Your task to perform on an android device: Open Google Maps and go to "Timeline" Image 0: 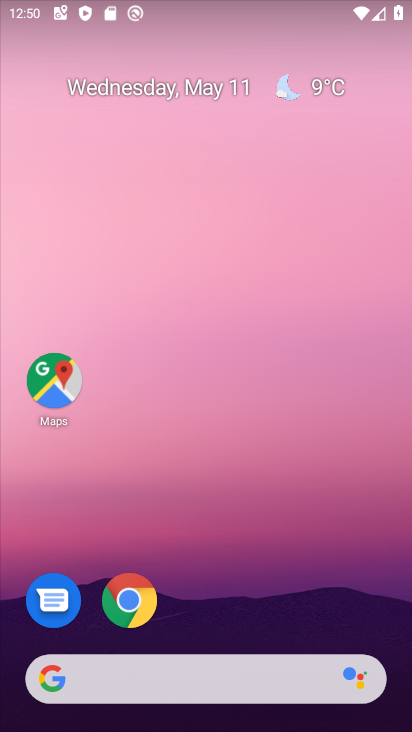
Step 0: click (49, 371)
Your task to perform on an android device: Open Google Maps and go to "Timeline" Image 1: 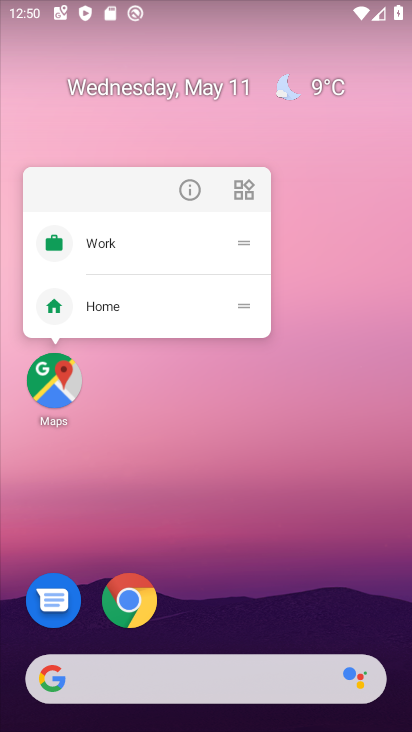
Step 1: click (61, 377)
Your task to perform on an android device: Open Google Maps and go to "Timeline" Image 2: 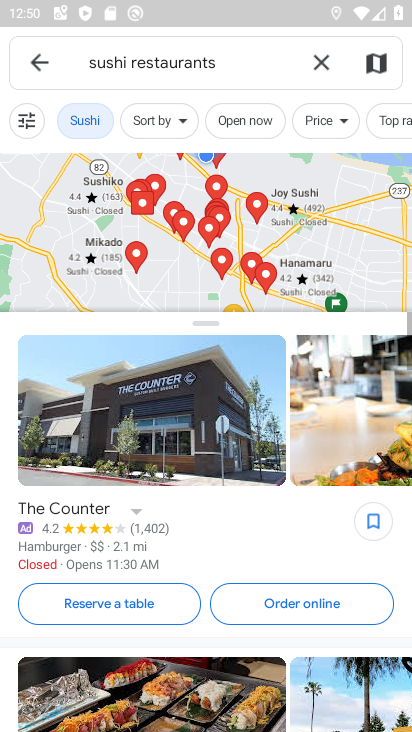
Step 2: click (37, 57)
Your task to perform on an android device: Open Google Maps and go to "Timeline" Image 3: 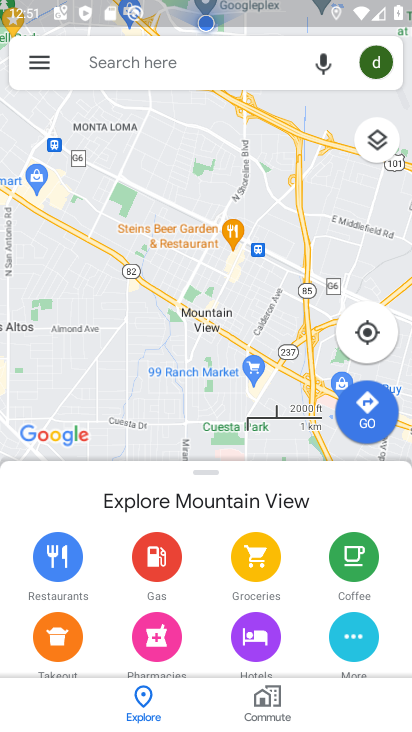
Step 3: click (37, 57)
Your task to perform on an android device: Open Google Maps and go to "Timeline" Image 4: 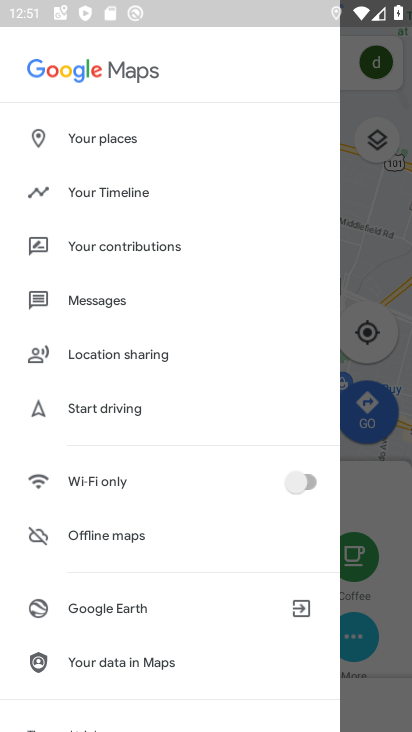
Step 4: click (128, 194)
Your task to perform on an android device: Open Google Maps and go to "Timeline" Image 5: 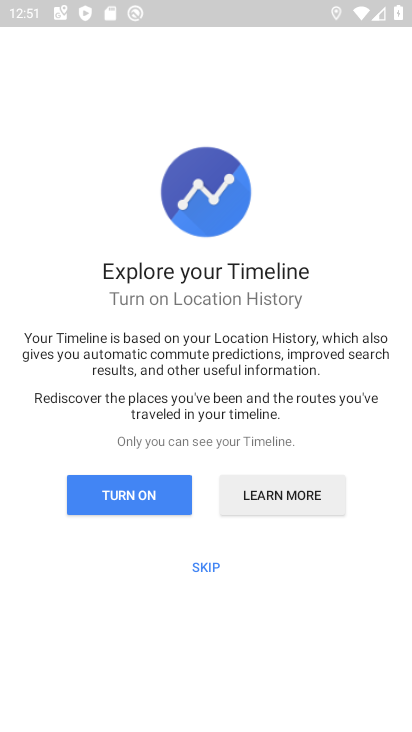
Step 5: click (202, 570)
Your task to perform on an android device: Open Google Maps and go to "Timeline" Image 6: 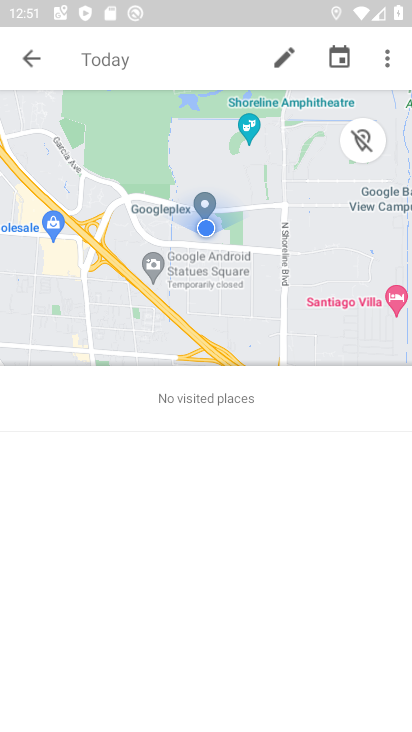
Step 6: click (31, 57)
Your task to perform on an android device: Open Google Maps and go to "Timeline" Image 7: 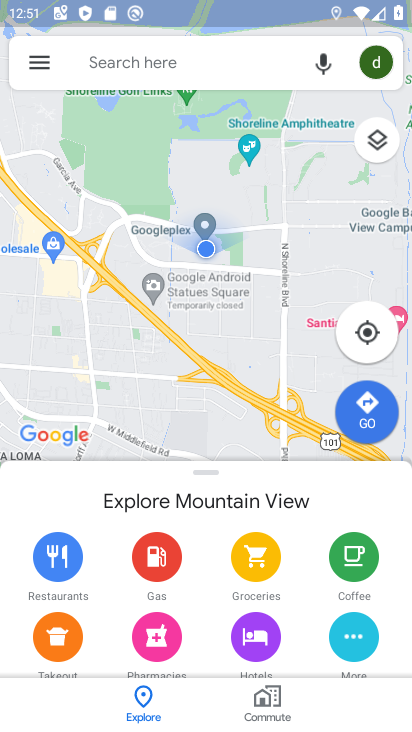
Step 7: click (42, 54)
Your task to perform on an android device: Open Google Maps and go to "Timeline" Image 8: 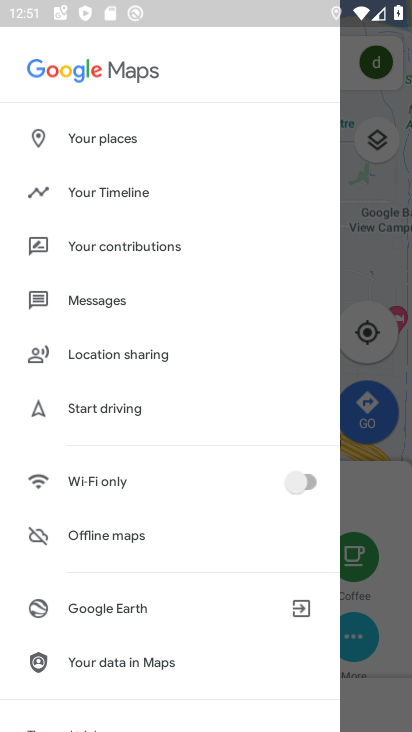
Step 8: drag from (216, 573) to (292, 155)
Your task to perform on an android device: Open Google Maps and go to "Timeline" Image 9: 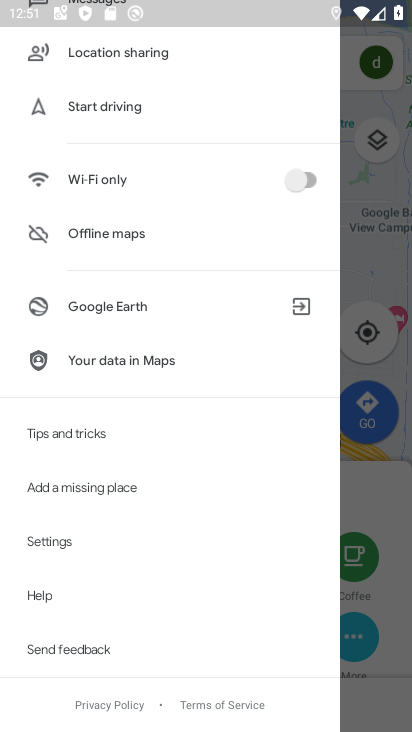
Step 9: drag from (237, 123) to (151, 648)
Your task to perform on an android device: Open Google Maps and go to "Timeline" Image 10: 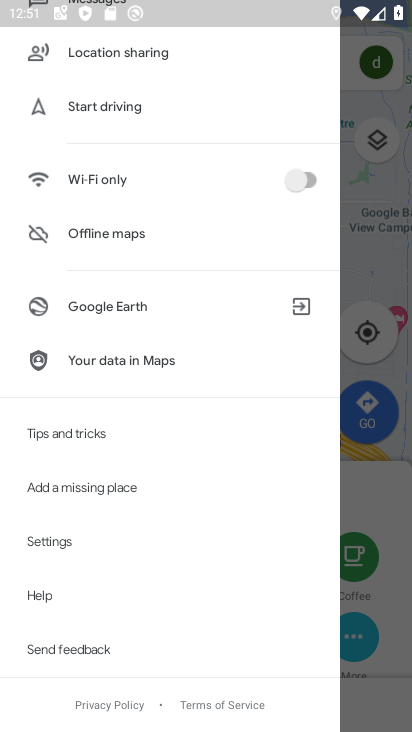
Step 10: drag from (175, 165) to (133, 587)
Your task to perform on an android device: Open Google Maps and go to "Timeline" Image 11: 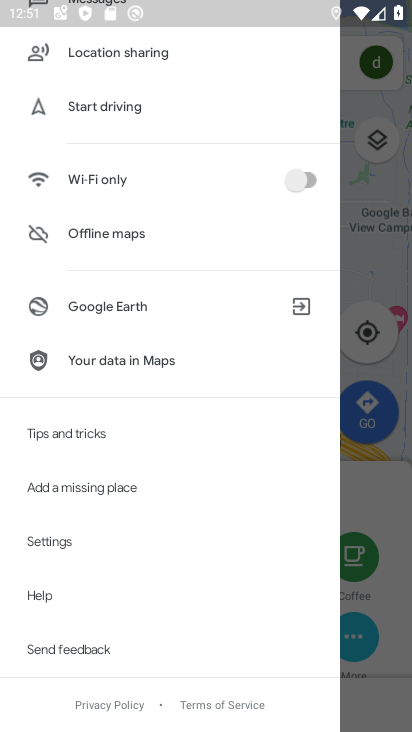
Step 11: drag from (113, 137) to (123, 627)
Your task to perform on an android device: Open Google Maps and go to "Timeline" Image 12: 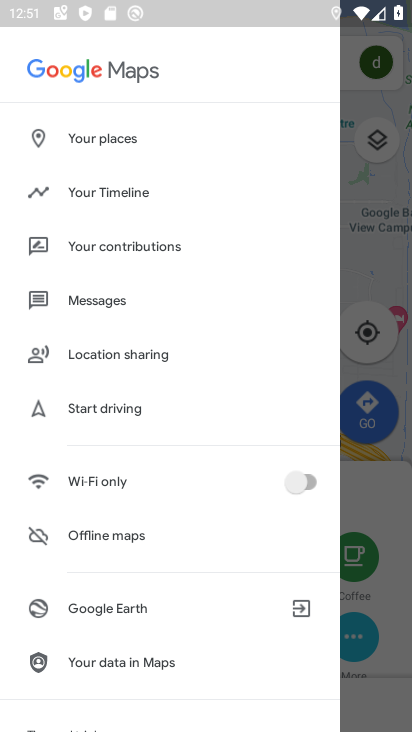
Step 12: click (137, 193)
Your task to perform on an android device: Open Google Maps and go to "Timeline" Image 13: 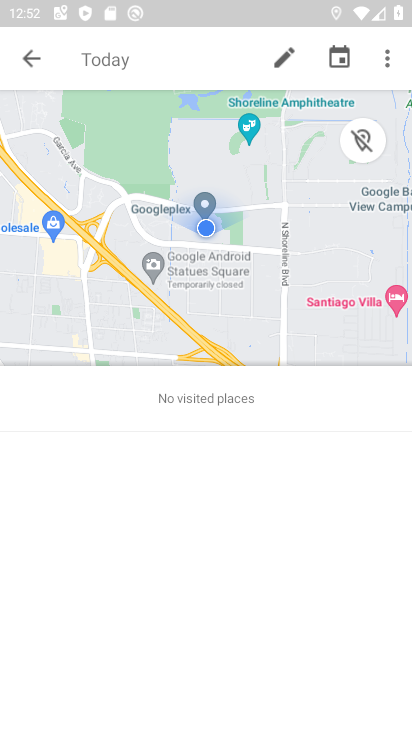
Step 13: task complete